Your task to perform on an android device: change keyboard looks Image 0: 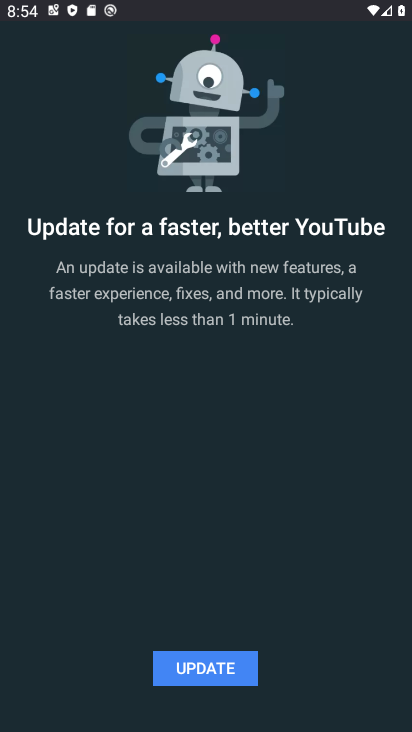
Step 0: press home button
Your task to perform on an android device: change keyboard looks Image 1: 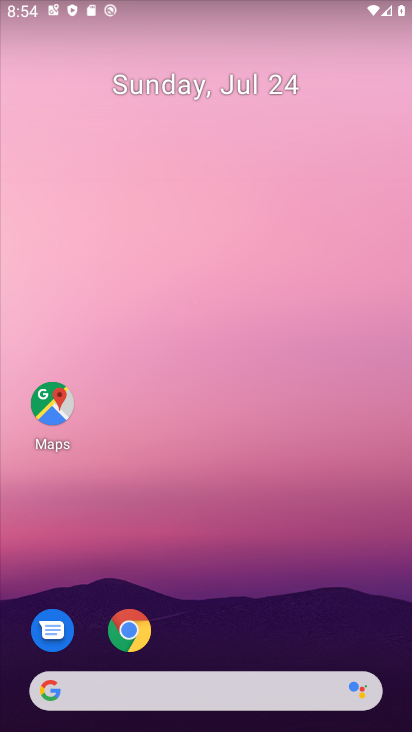
Step 1: drag from (249, 572) to (274, 100)
Your task to perform on an android device: change keyboard looks Image 2: 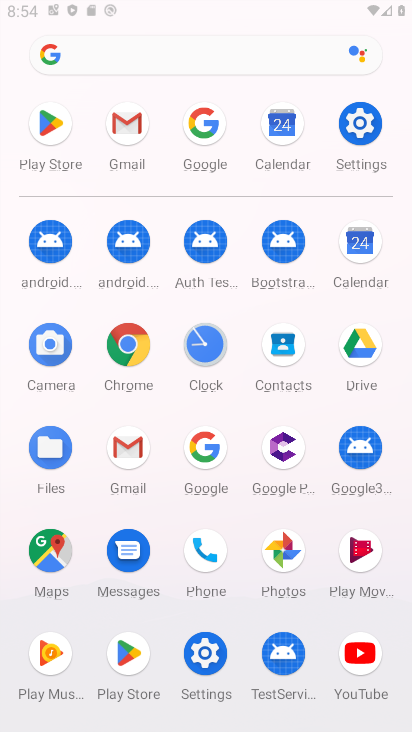
Step 2: click (337, 121)
Your task to perform on an android device: change keyboard looks Image 3: 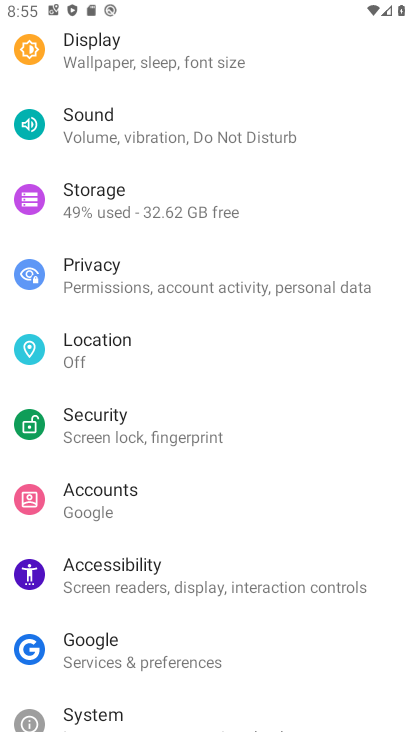
Step 3: drag from (223, 665) to (218, 150)
Your task to perform on an android device: change keyboard looks Image 4: 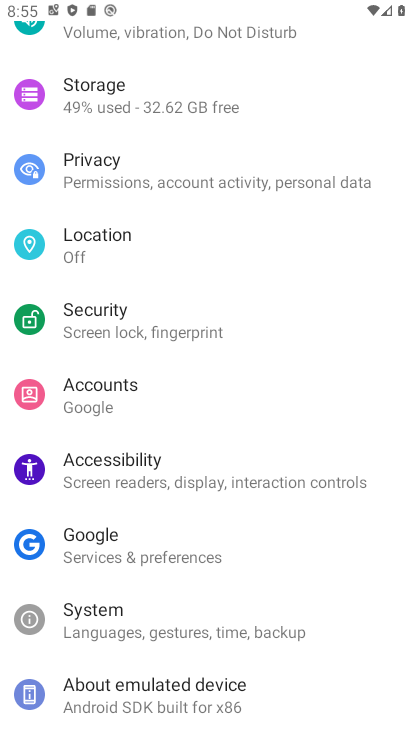
Step 4: click (160, 623)
Your task to perform on an android device: change keyboard looks Image 5: 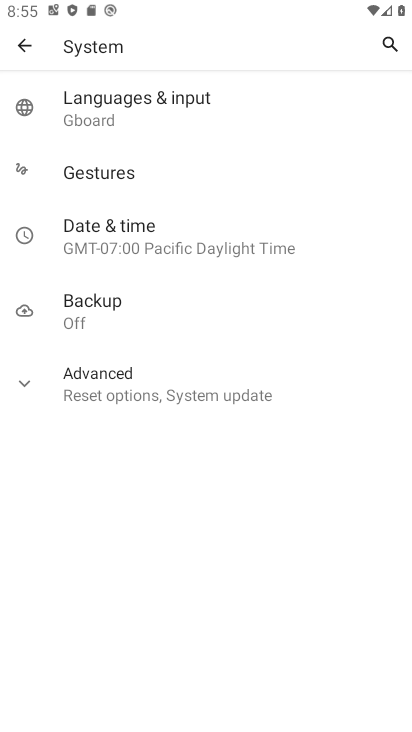
Step 5: click (159, 123)
Your task to perform on an android device: change keyboard looks Image 6: 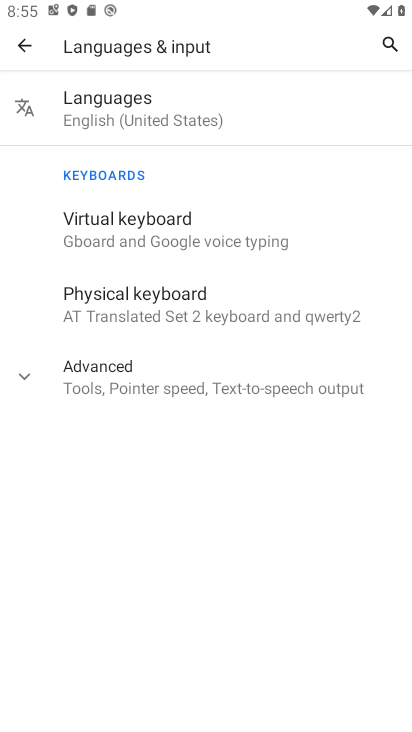
Step 6: click (189, 232)
Your task to perform on an android device: change keyboard looks Image 7: 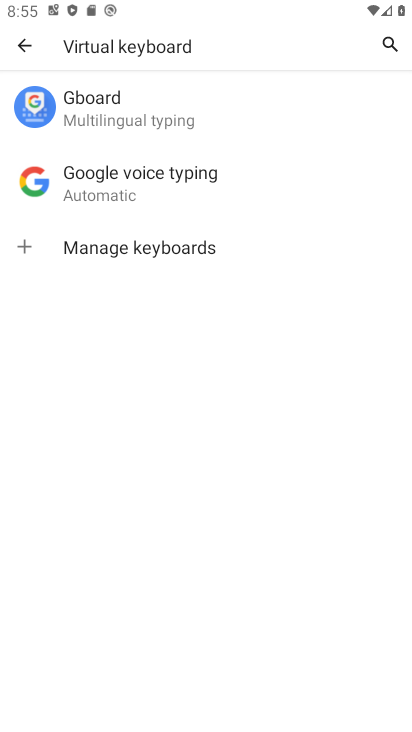
Step 7: click (128, 132)
Your task to perform on an android device: change keyboard looks Image 8: 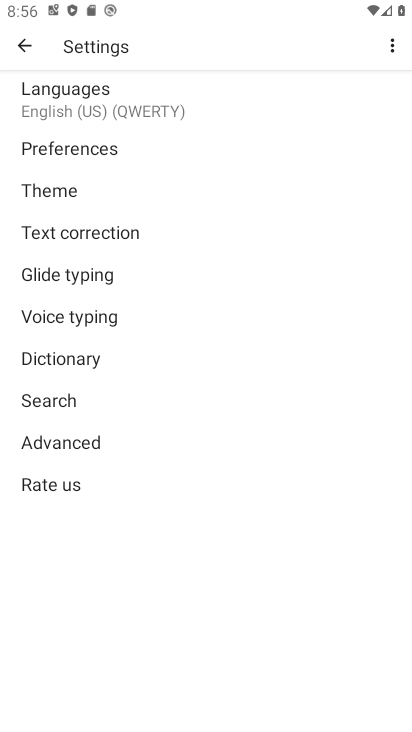
Step 8: click (77, 180)
Your task to perform on an android device: change keyboard looks Image 9: 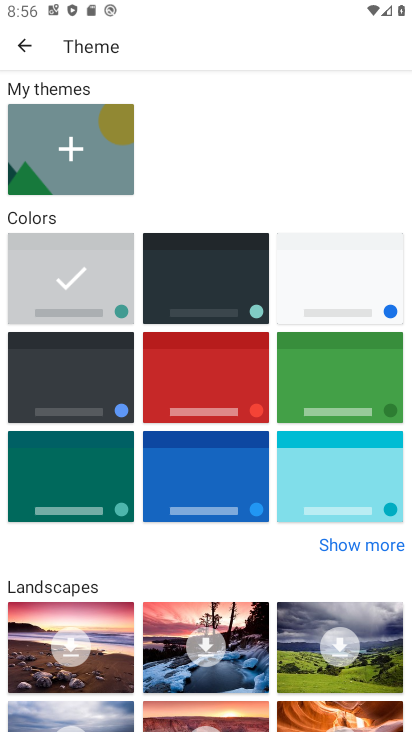
Step 9: click (239, 285)
Your task to perform on an android device: change keyboard looks Image 10: 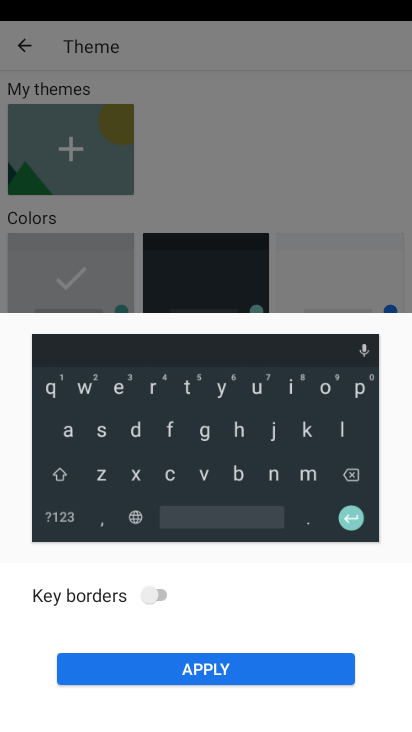
Step 10: click (106, 679)
Your task to perform on an android device: change keyboard looks Image 11: 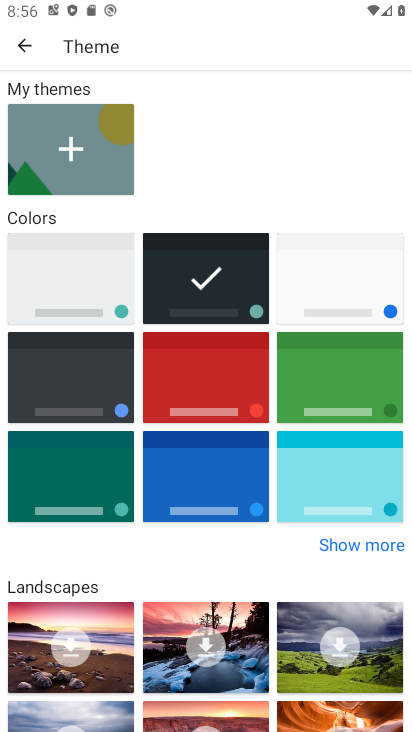
Step 11: task complete